Your task to perform on an android device: open chrome and create a bookmark for the current page Image 0: 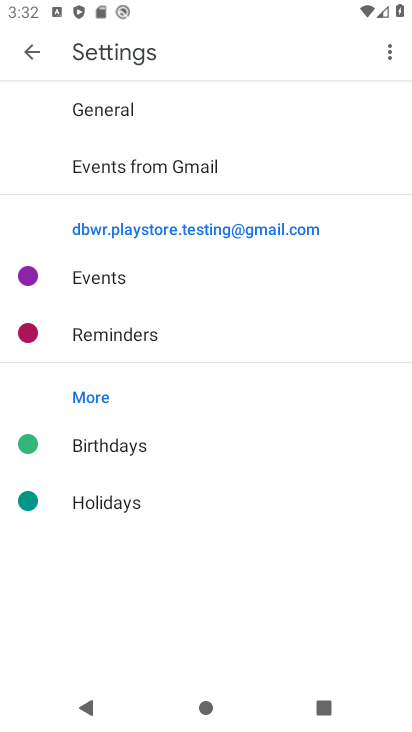
Step 0: press home button
Your task to perform on an android device: open chrome and create a bookmark for the current page Image 1: 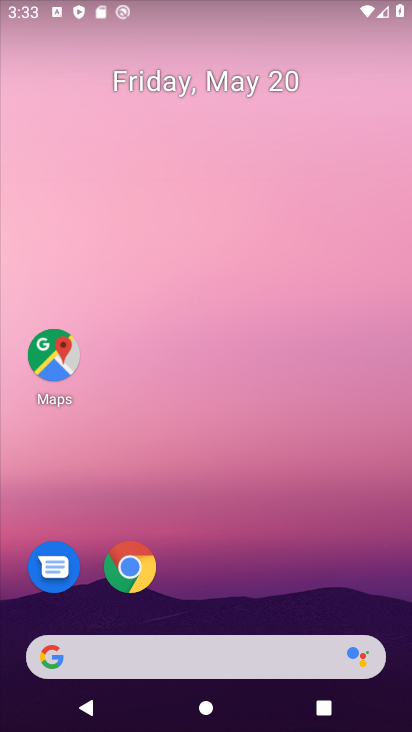
Step 1: drag from (297, 576) to (260, 75)
Your task to perform on an android device: open chrome and create a bookmark for the current page Image 2: 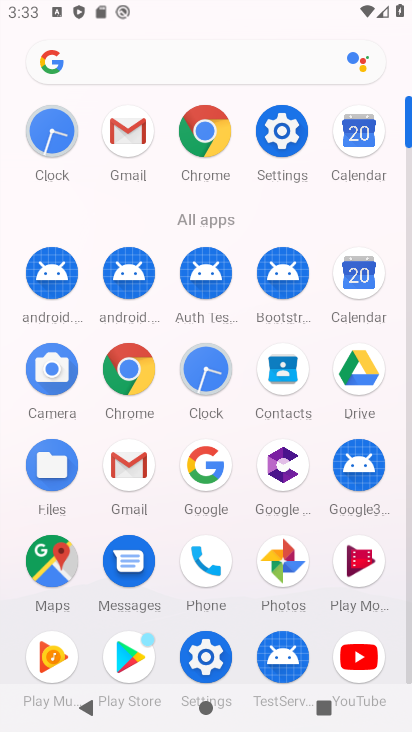
Step 2: click (207, 135)
Your task to perform on an android device: open chrome and create a bookmark for the current page Image 3: 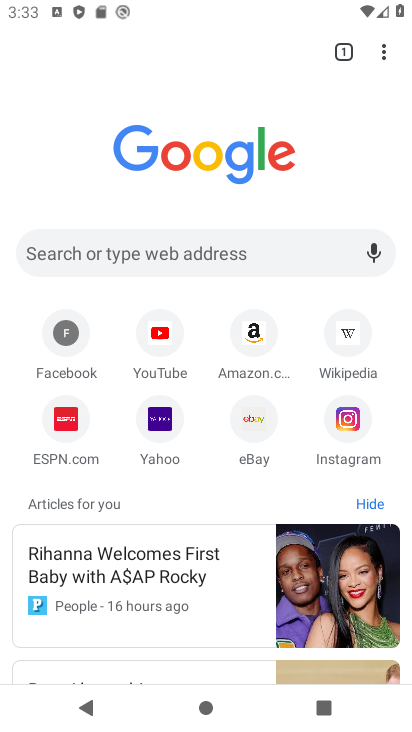
Step 3: task complete